Your task to perform on an android device: View the shopping cart on ebay.com. Search for "logitech g502" on ebay.com, select the first entry, add it to the cart, then select checkout. Image 0: 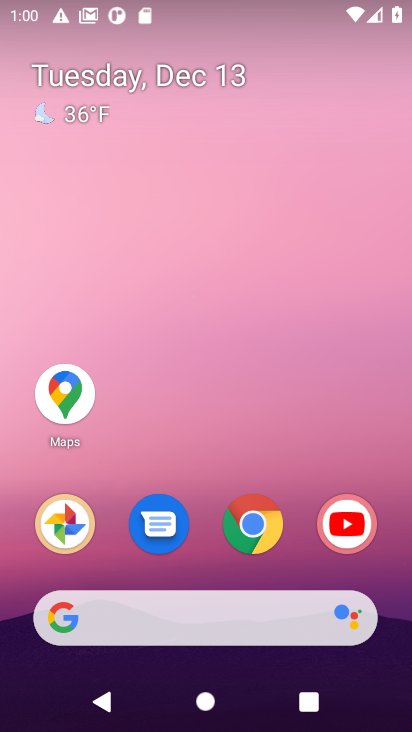
Step 0: click (261, 531)
Your task to perform on an android device: View the shopping cart on ebay.com. Search for "logitech g502" on ebay.com, select the first entry, add it to the cart, then select checkout. Image 1: 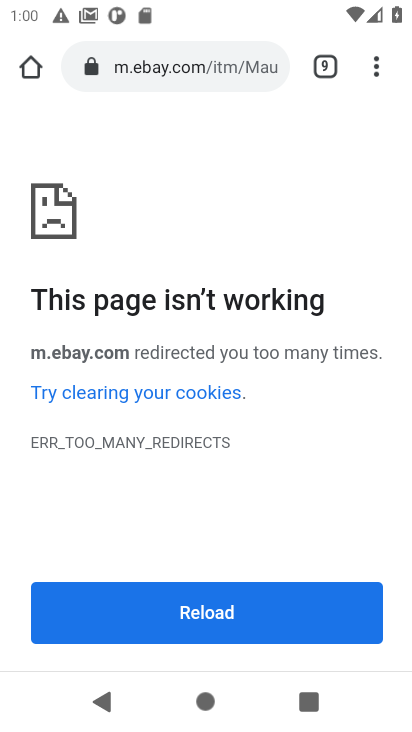
Step 1: press back button
Your task to perform on an android device: View the shopping cart on ebay.com. Search for "logitech g502" on ebay.com, select the first entry, add it to the cart, then select checkout. Image 2: 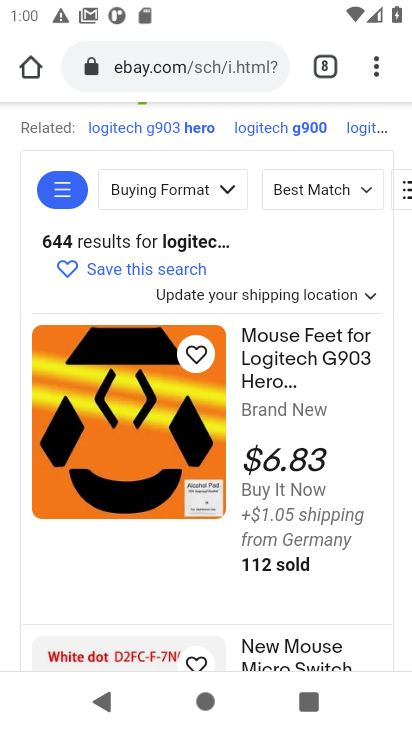
Step 2: drag from (300, 178) to (342, 412)
Your task to perform on an android device: View the shopping cart on ebay.com. Search for "logitech g502" on ebay.com, select the first entry, add it to the cart, then select checkout. Image 3: 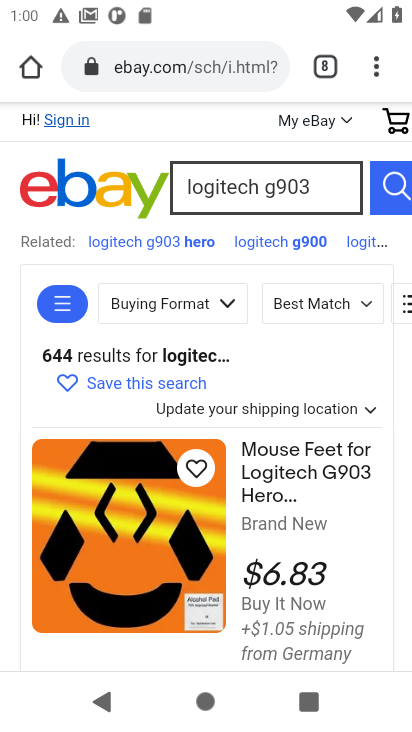
Step 3: click (394, 122)
Your task to perform on an android device: View the shopping cart on ebay.com. Search for "logitech g502" on ebay.com, select the first entry, add it to the cart, then select checkout. Image 4: 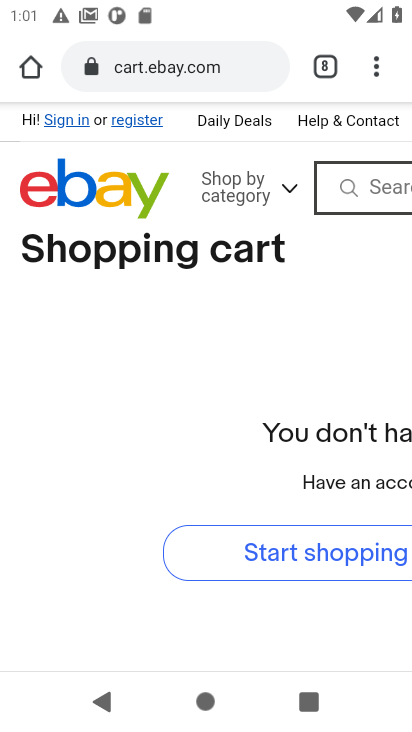
Step 4: click (370, 188)
Your task to perform on an android device: View the shopping cart on ebay.com. Search for "logitech g502" on ebay.com, select the first entry, add it to the cart, then select checkout. Image 5: 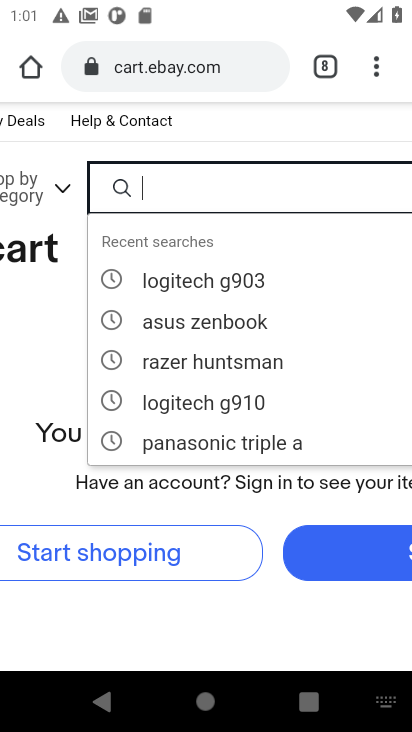
Step 5: type "logitech g502"
Your task to perform on an android device: View the shopping cart on ebay.com. Search for "logitech g502" on ebay.com, select the first entry, add it to the cart, then select checkout. Image 6: 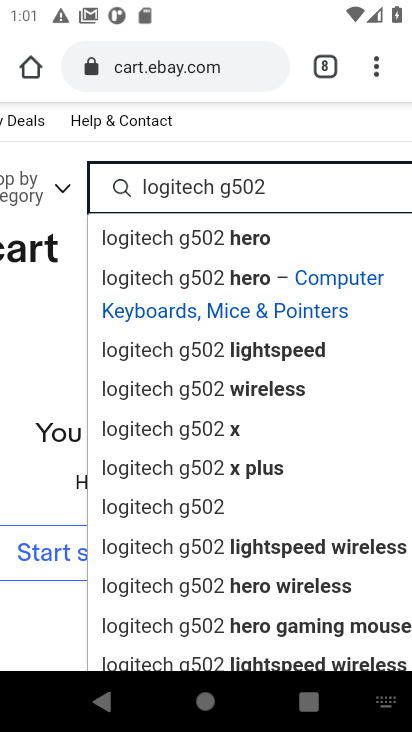
Step 6: click (223, 243)
Your task to perform on an android device: View the shopping cart on ebay.com. Search for "logitech g502" on ebay.com, select the first entry, add it to the cart, then select checkout. Image 7: 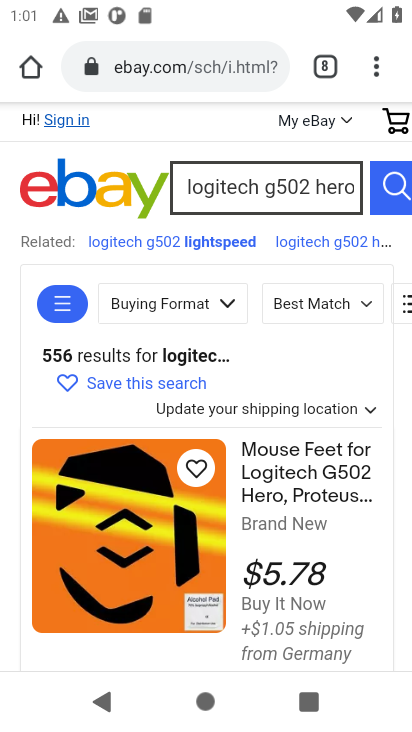
Step 7: click (262, 505)
Your task to perform on an android device: View the shopping cart on ebay.com. Search for "logitech g502" on ebay.com, select the first entry, add it to the cart, then select checkout. Image 8: 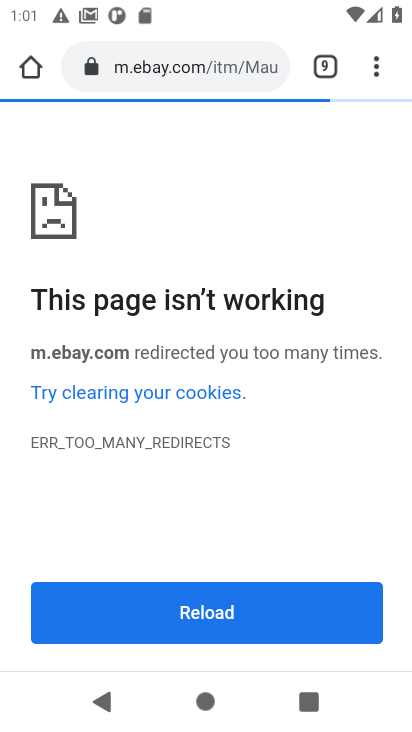
Step 8: task complete